Your task to perform on an android device: snooze an email in the gmail app Image 0: 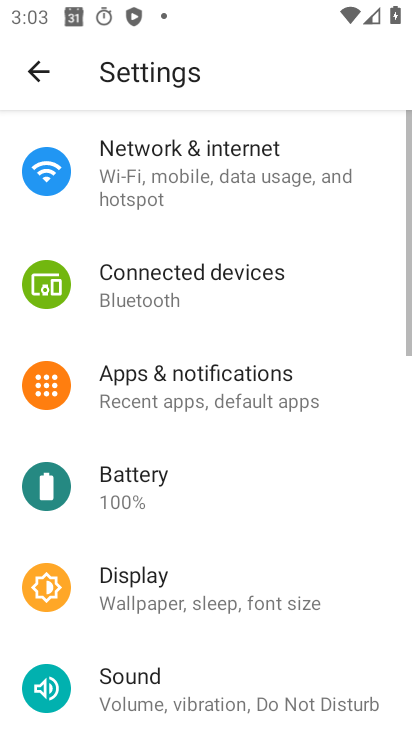
Step 0: press home button
Your task to perform on an android device: snooze an email in the gmail app Image 1: 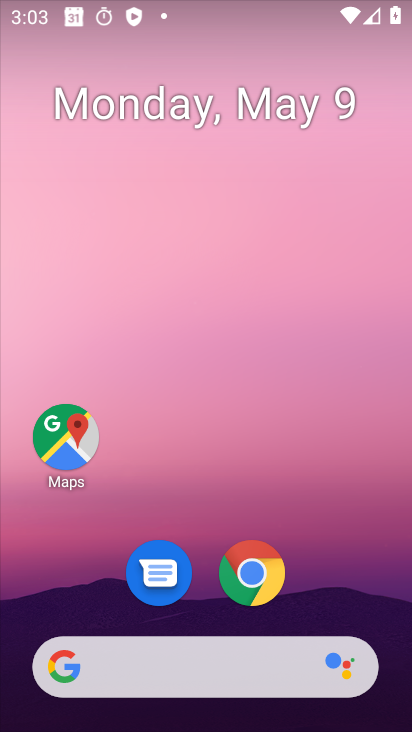
Step 1: drag from (372, 620) to (194, 100)
Your task to perform on an android device: snooze an email in the gmail app Image 2: 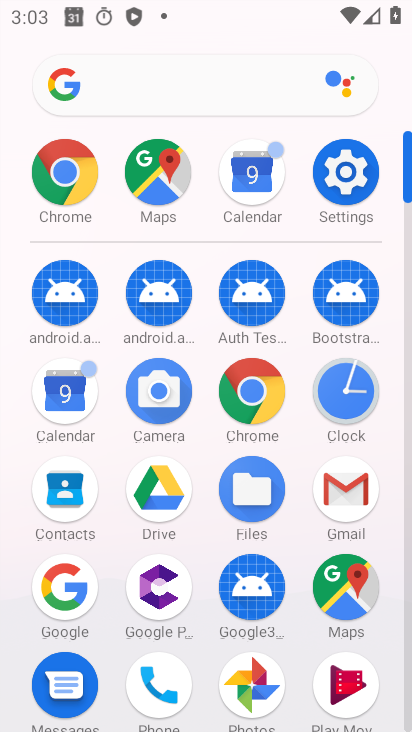
Step 2: click (347, 481)
Your task to perform on an android device: snooze an email in the gmail app Image 3: 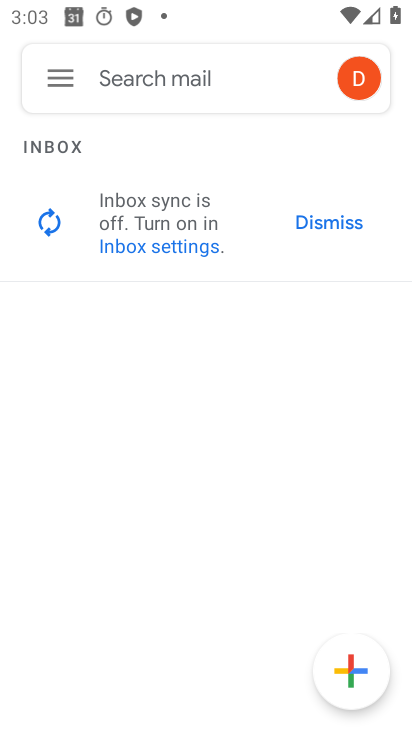
Step 3: click (180, 228)
Your task to perform on an android device: snooze an email in the gmail app Image 4: 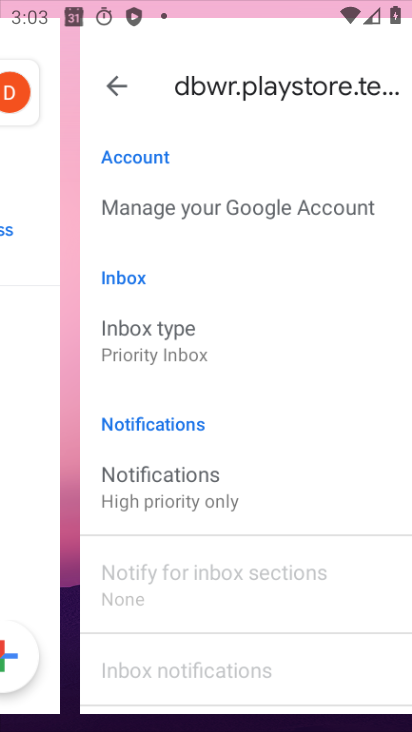
Step 4: click (180, 228)
Your task to perform on an android device: snooze an email in the gmail app Image 5: 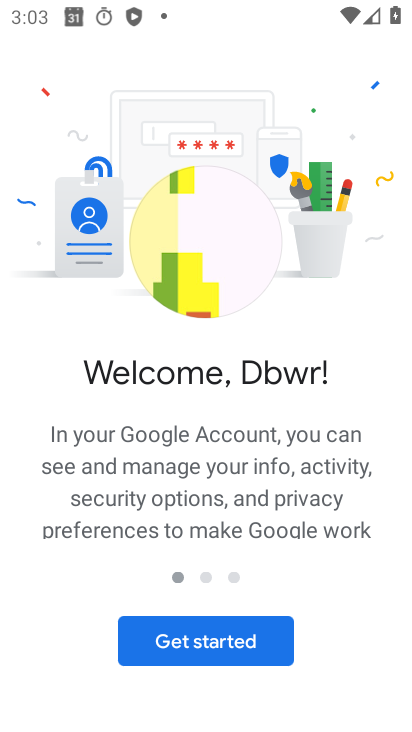
Step 5: click (219, 641)
Your task to perform on an android device: snooze an email in the gmail app Image 6: 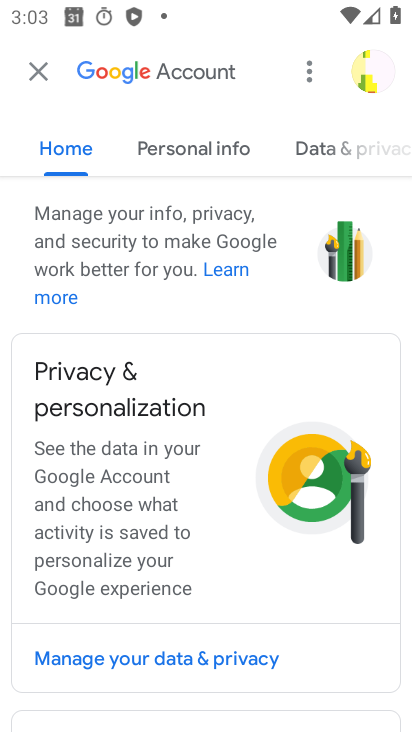
Step 6: click (46, 68)
Your task to perform on an android device: snooze an email in the gmail app Image 7: 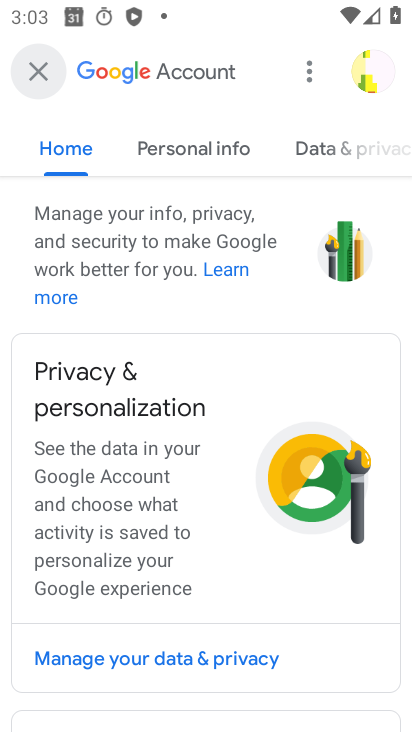
Step 7: click (46, 68)
Your task to perform on an android device: snooze an email in the gmail app Image 8: 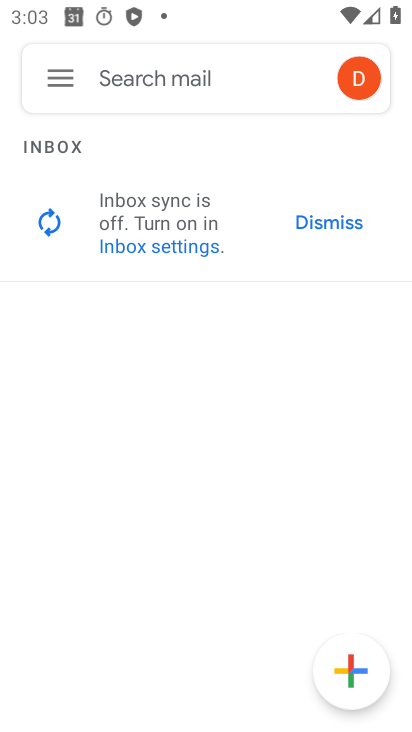
Step 8: click (127, 231)
Your task to perform on an android device: snooze an email in the gmail app Image 9: 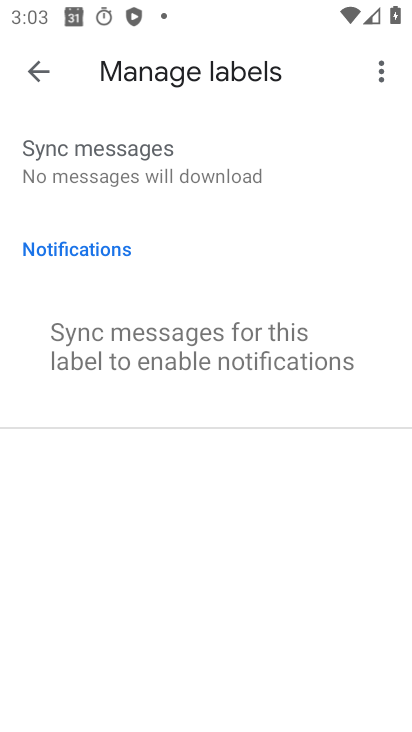
Step 9: drag from (217, 396) to (203, 288)
Your task to perform on an android device: snooze an email in the gmail app Image 10: 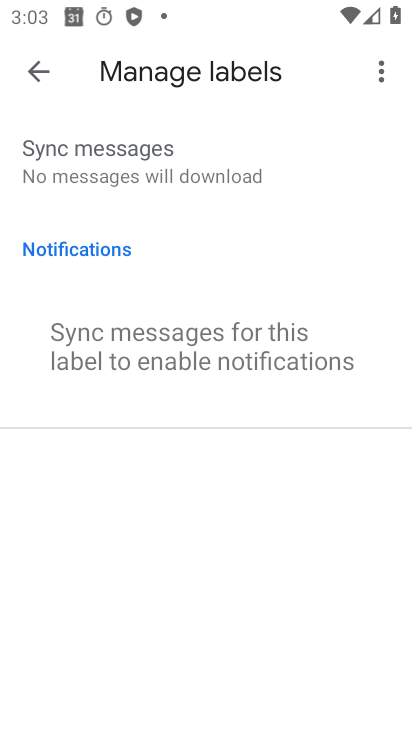
Step 10: click (198, 329)
Your task to perform on an android device: snooze an email in the gmail app Image 11: 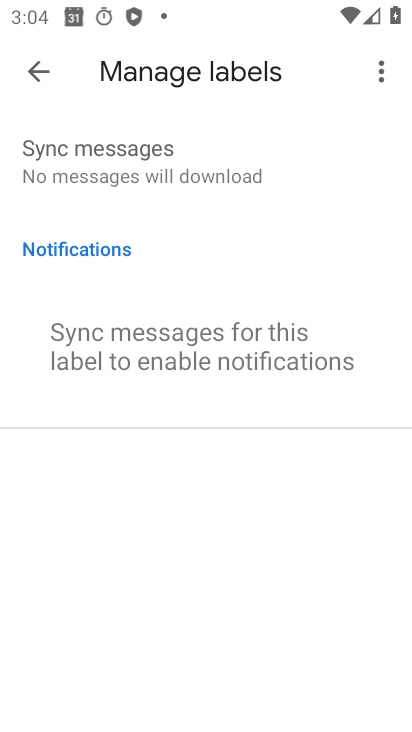
Step 11: click (34, 74)
Your task to perform on an android device: snooze an email in the gmail app Image 12: 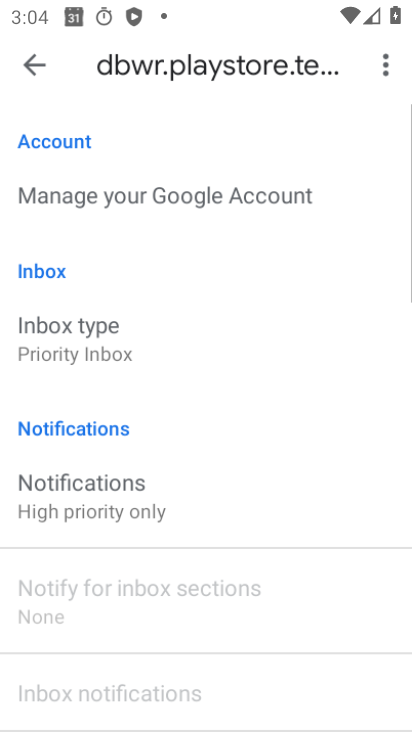
Step 12: click (34, 74)
Your task to perform on an android device: snooze an email in the gmail app Image 13: 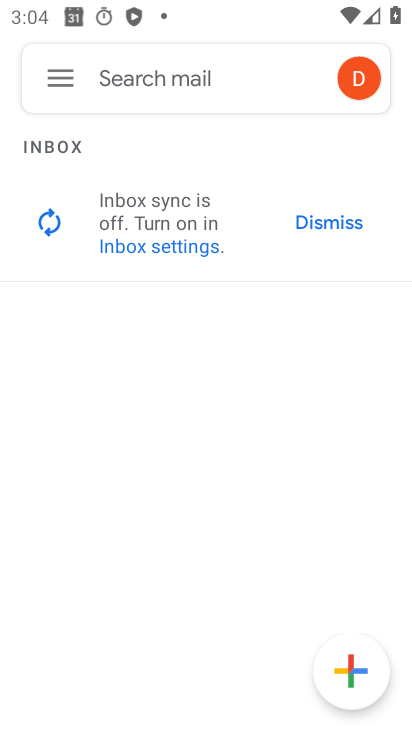
Step 13: click (34, 74)
Your task to perform on an android device: snooze an email in the gmail app Image 14: 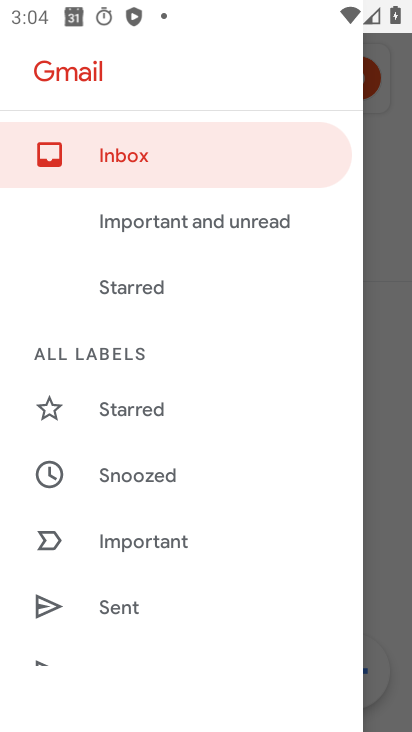
Step 14: drag from (155, 486) to (172, 421)
Your task to perform on an android device: snooze an email in the gmail app Image 15: 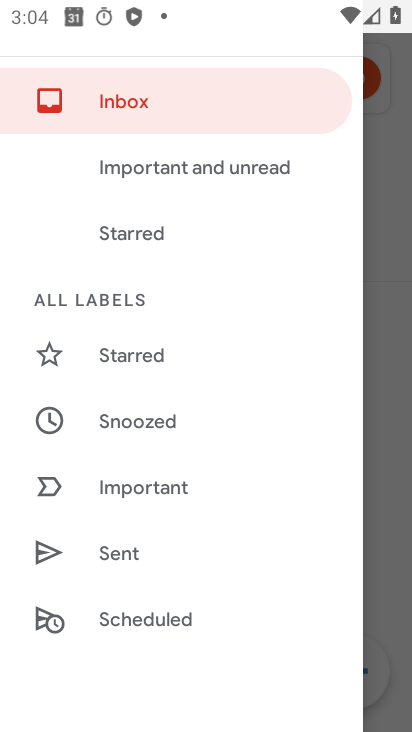
Step 15: drag from (183, 609) to (152, 260)
Your task to perform on an android device: snooze an email in the gmail app Image 16: 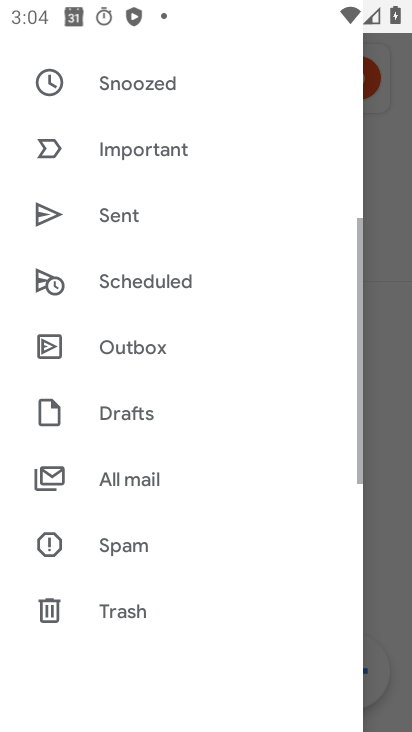
Step 16: drag from (198, 519) to (167, 212)
Your task to perform on an android device: snooze an email in the gmail app Image 17: 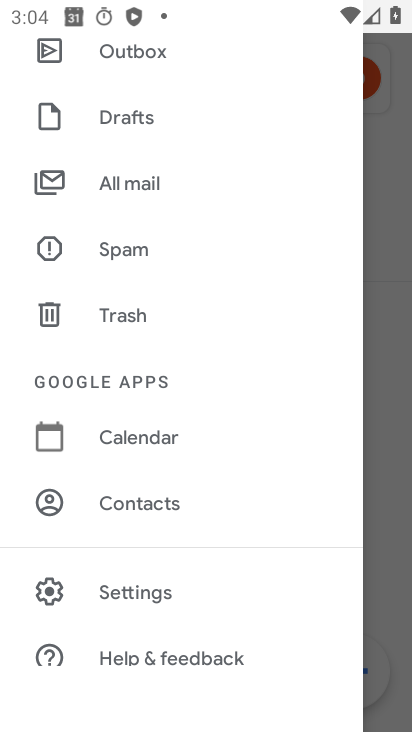
Step 17: click (119, 193)
Your task to perform on an android device: snooze an email in the gmail app Image 18: 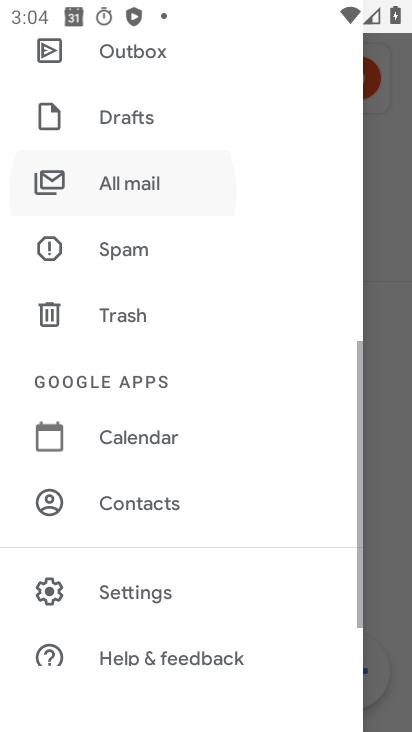
Step 18: click (121, 192)
Your task to perform on an android device: snooze an email in the gmail app Image 19: 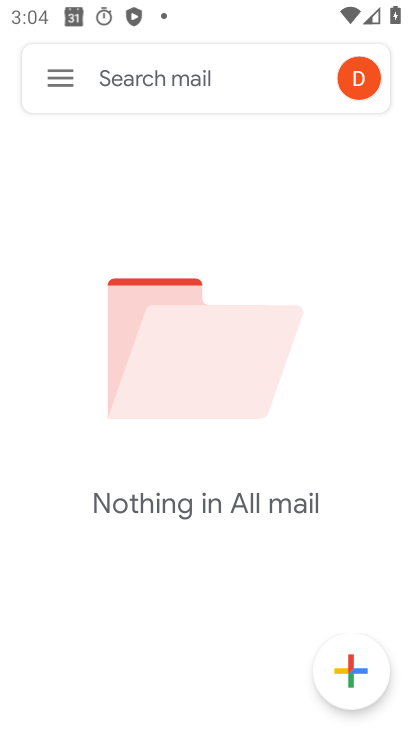
Step 19: task complete